Your task to perform on an android device: star an email in the gmail app Image 0: 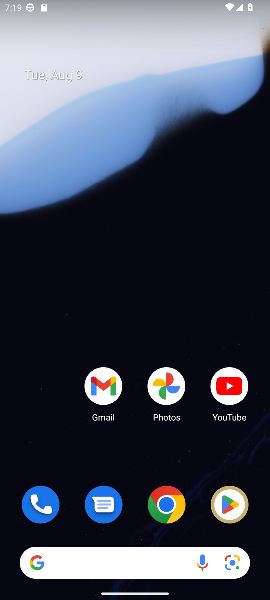
Step 0: click (121, 396)
Your task to perform on an android device: star an email in the gmail app Image 1: 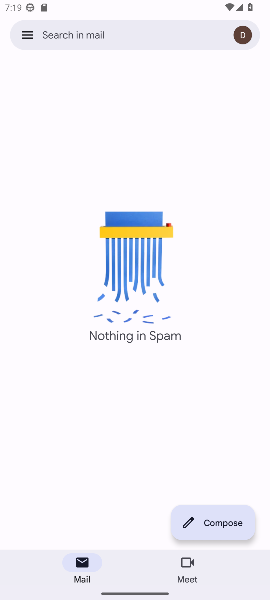
Step 1: task complete